Your task to perform on an android device: add a label to a message in the gmail app Image 0: 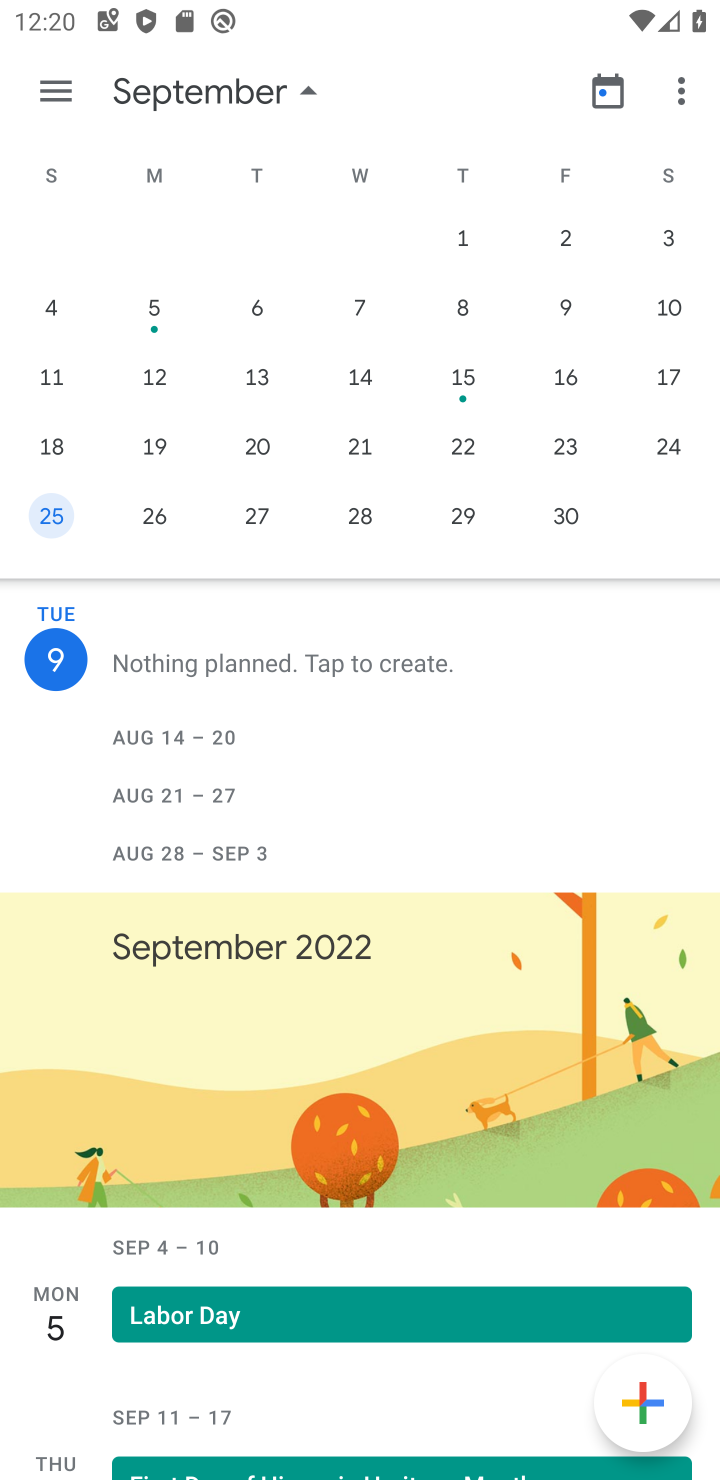
Step 0: press home button
Your task to perform on an android device: add a label to a message in the gmail app Image 1: 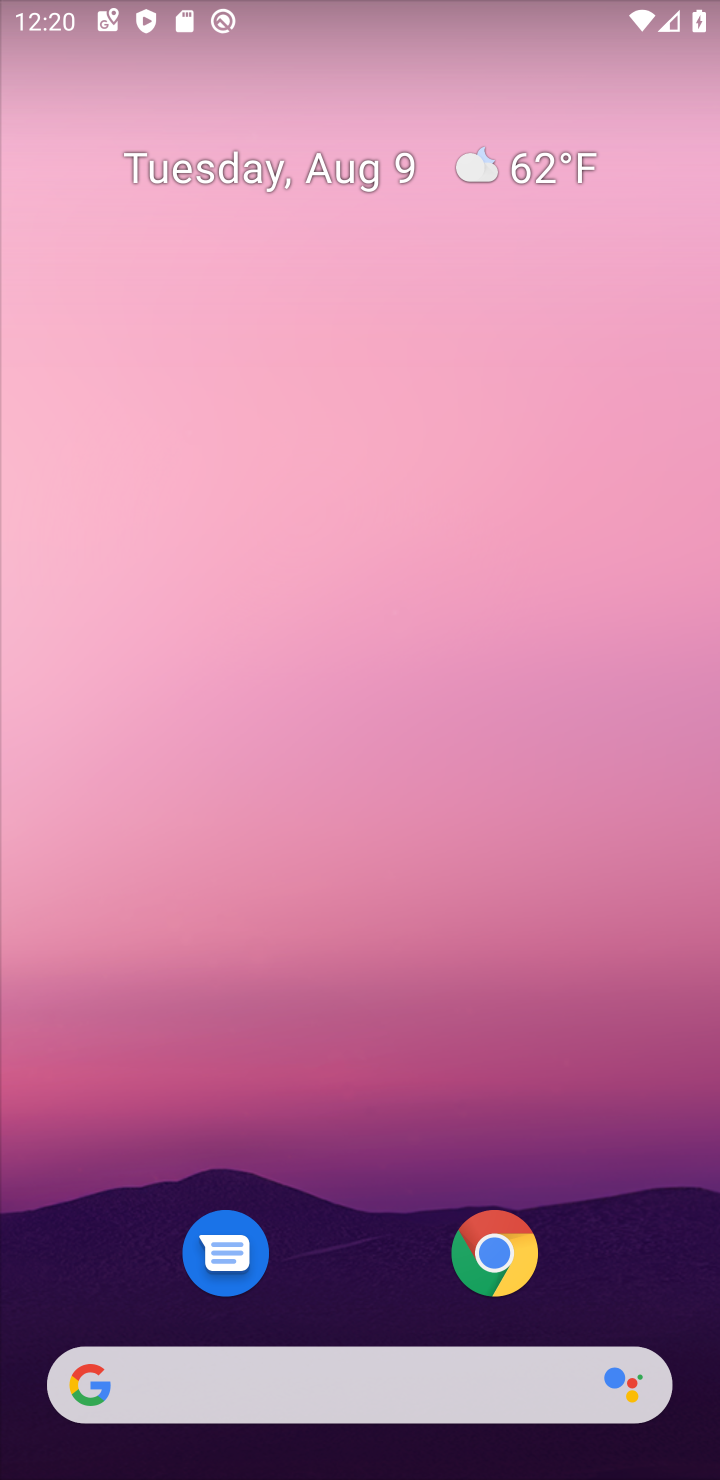
Step 1: drag from (600, 1135) to (427, 114)
Your task to perform on an android device: add a label to a message in the gmail app Image 2: 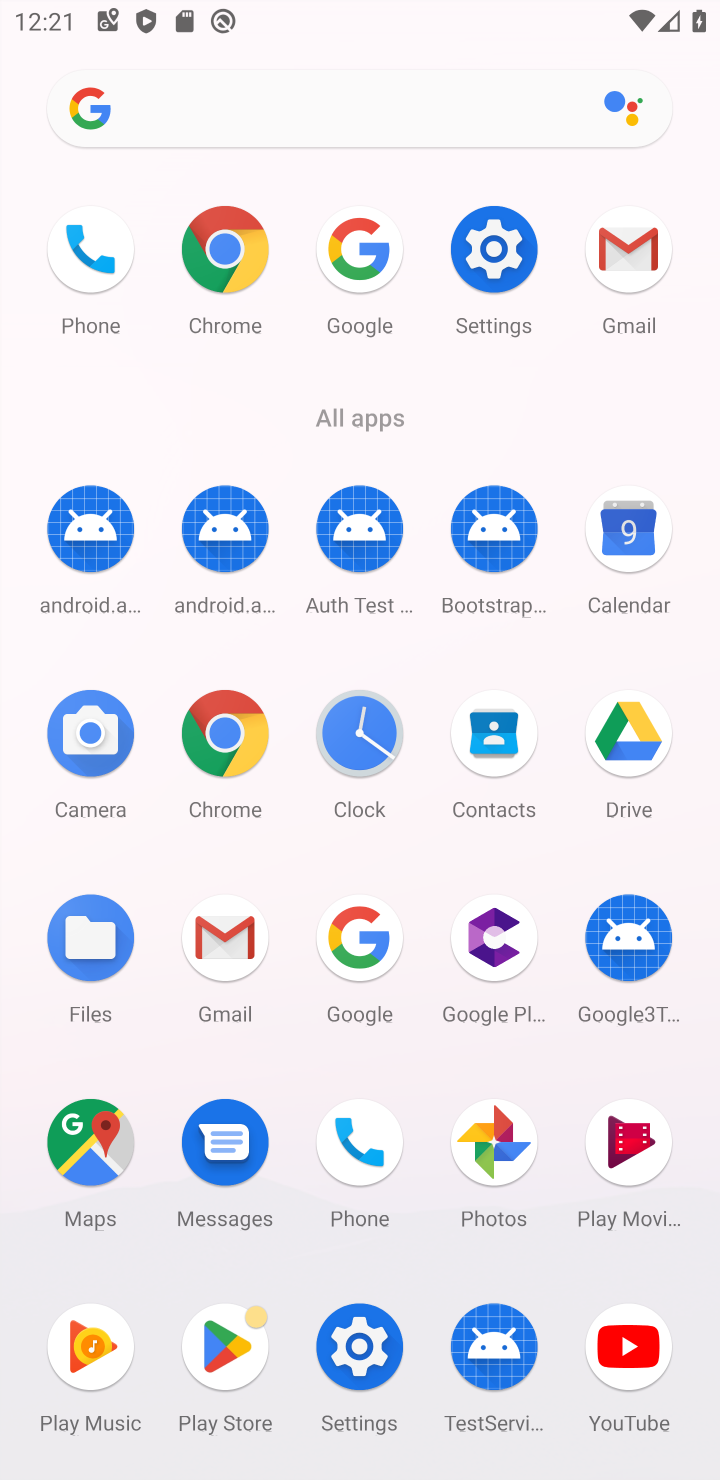
Step 2: click (182, 933)
Your task to perform on an android device: add a label to a message in the gmail app Image 3: 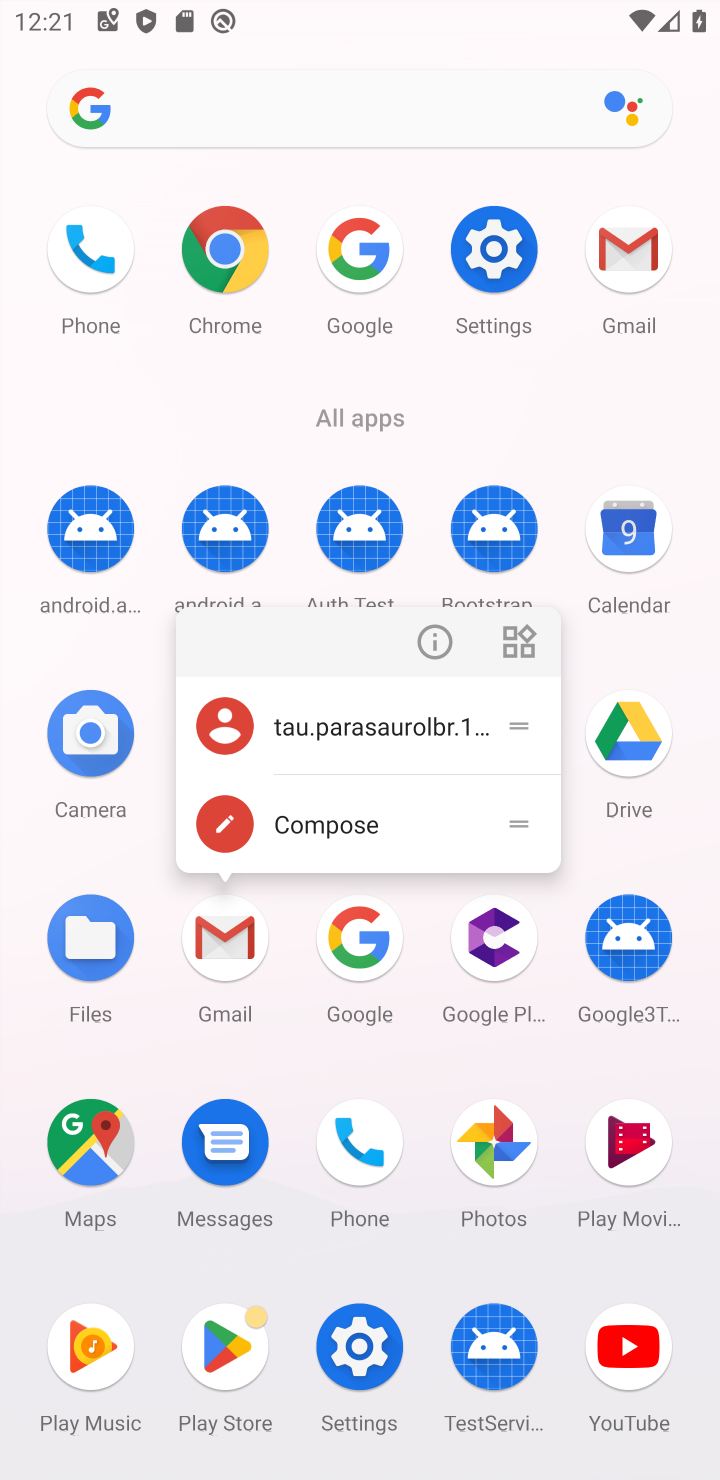
Step 3: click (227, 945)
Your task to perform on an android device: add a label to a message in the gmail app Image 4: 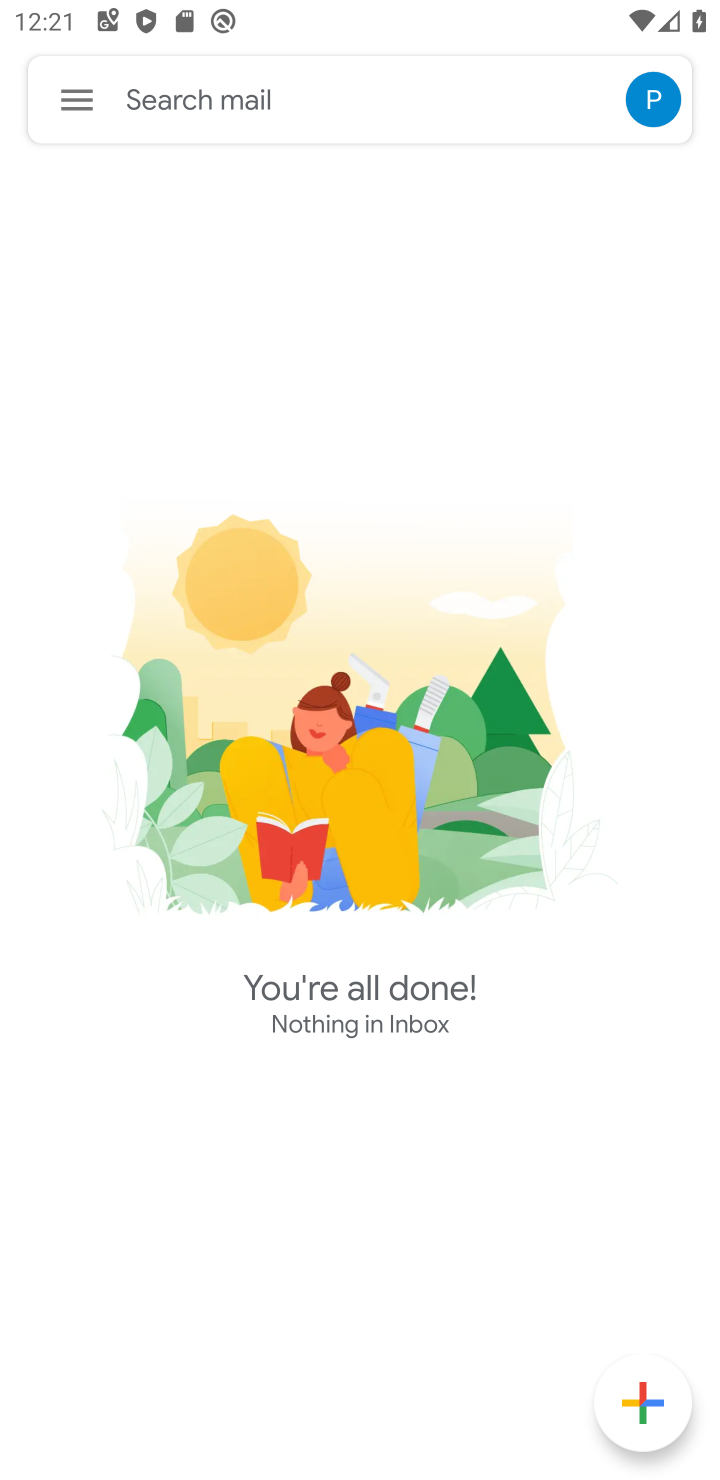
Step 4: task complete